Your task to perform on an android device: Turn on the flashlight Image 0: 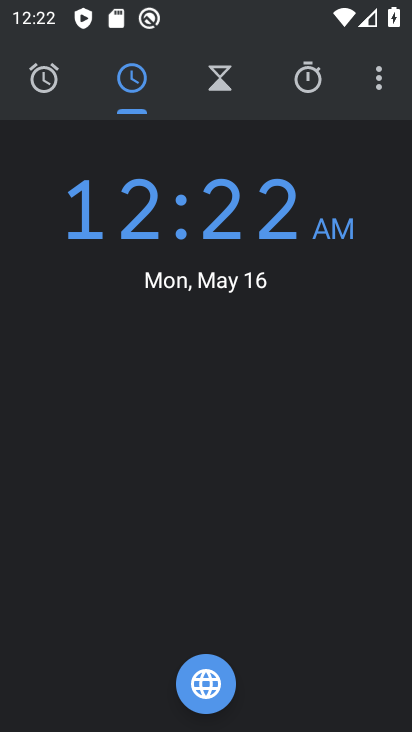
Step 0: press home button
Your task to perform on an android device: Turn on the flashlight Image 1: 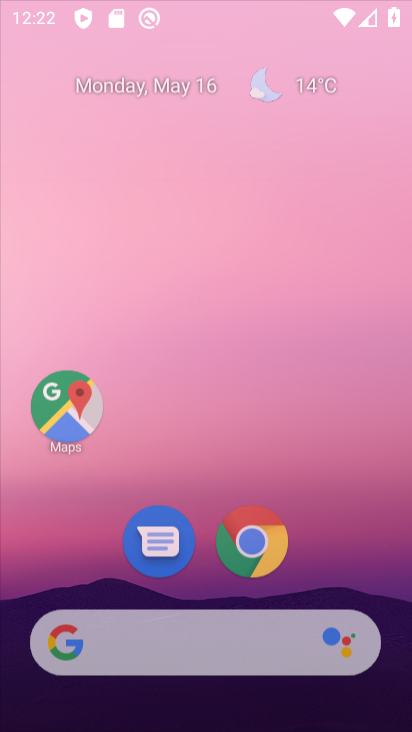
Step 1: press home button
Your task to perform on an android device: Turn on the flashlight Image 2: 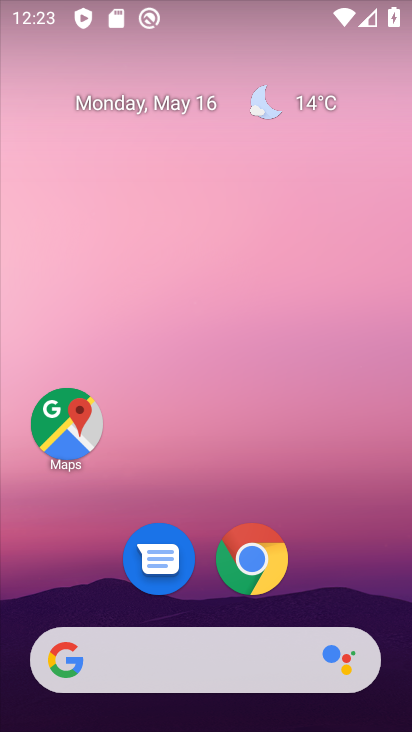
Step 2: drag from (351, 540) to (277, 9)
Your task to perform on an android device: Turn on the flashlight Image 3: 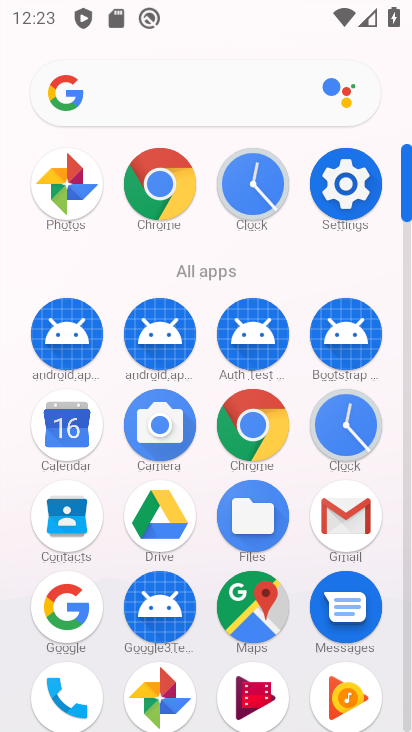
Step 3: click (346, 173)
Your task to perform on an android device: Turn on the flashlight Image 4: 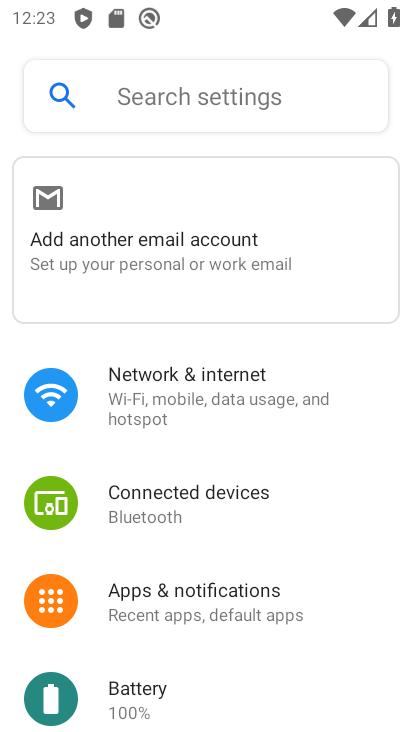
Step 4: task complete